Your task to perform on an android device: turn on the 12-hour format for clock Image 0: 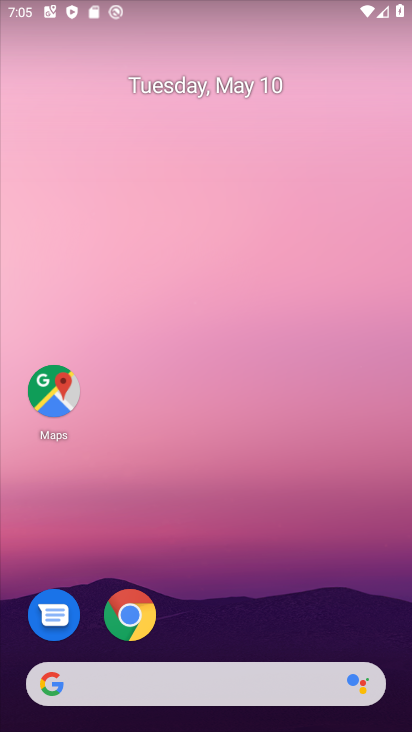
Step 0: drag from (231, 552) to (86, 160)
Your task to perform on an android device: turn on the 12-hour format for clock Image 1: 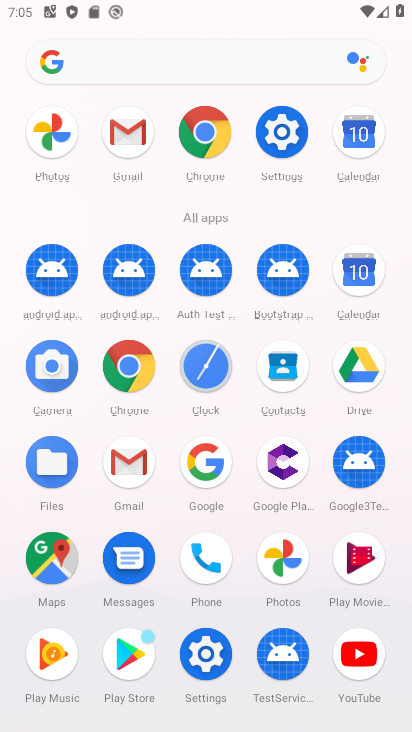
Step 1: click (204, 360)
Your task to perform on an android device: turn on the 12-hour format for clock Image 2: 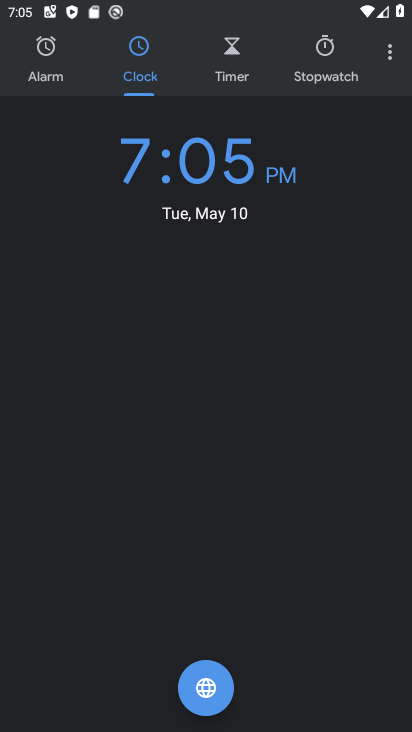
Step 2: click (389, 48)
Your task to perform on an android device: turn on the 12-hour format for clock Image 3: 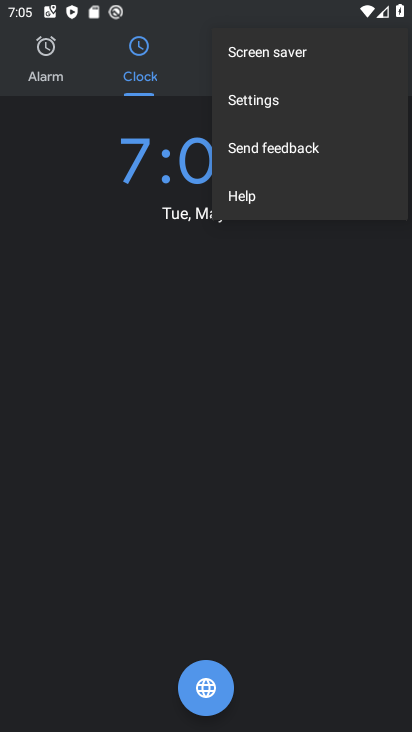
Step 3: click (259, 100)
Your task to perform on an android device: turn on the 12-hour format for clock Image 4: 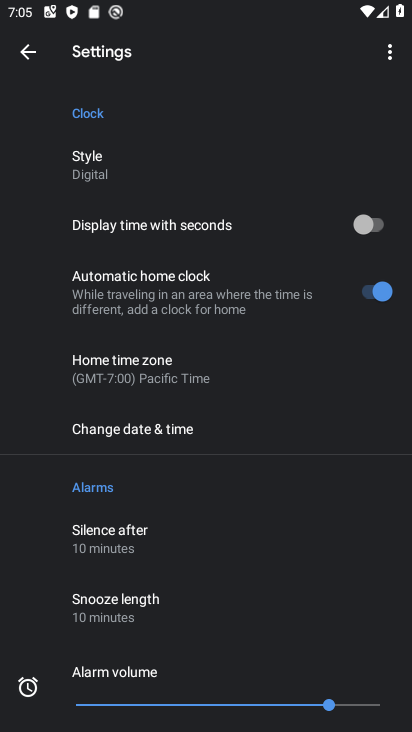
Step 4: click (138, 426)
Your task to perform on an android device: turn on the 12-hour format for clock Image 5: 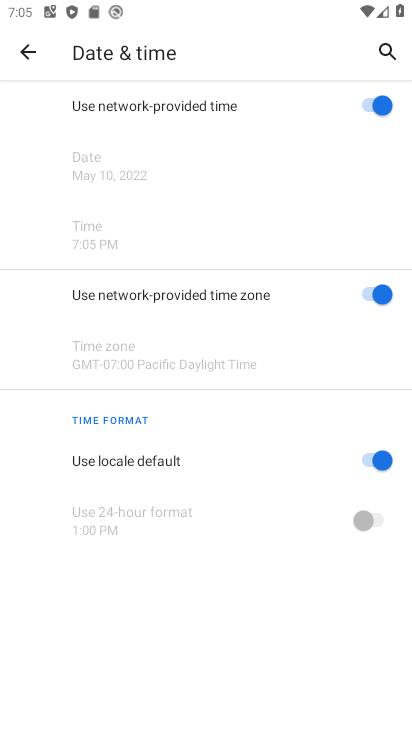
Step 5: task complete